Your task to perform on an android device: Open the stopwatch Image 0: 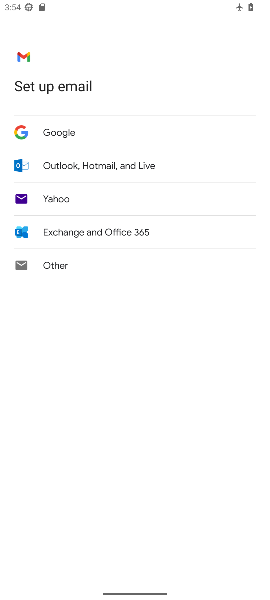
Step 0: press home button
Your task to perform on an android device: Open the stopwatch Image 1: 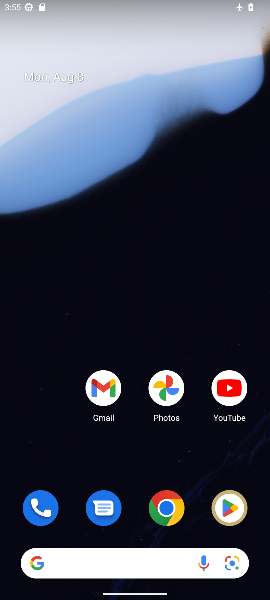
Step 1: drag from (145, 463) to (129, 23)
Your task to perform on an android device: Open the stopwatch Image 2: 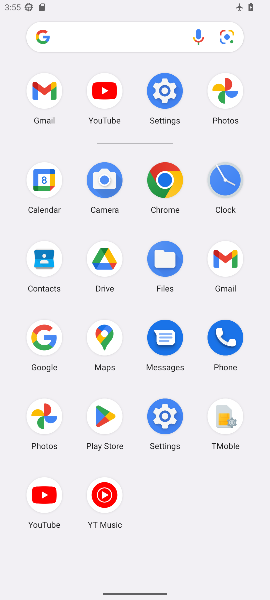
Step 2: click (233, 185)
Your task to perform on an android device: Open the stopwatch Image 3: 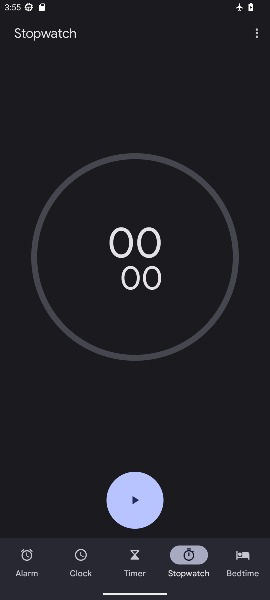
Step 3: task complete